Your task to perform on an android device: turn on data saver in the chrome app Image 0: 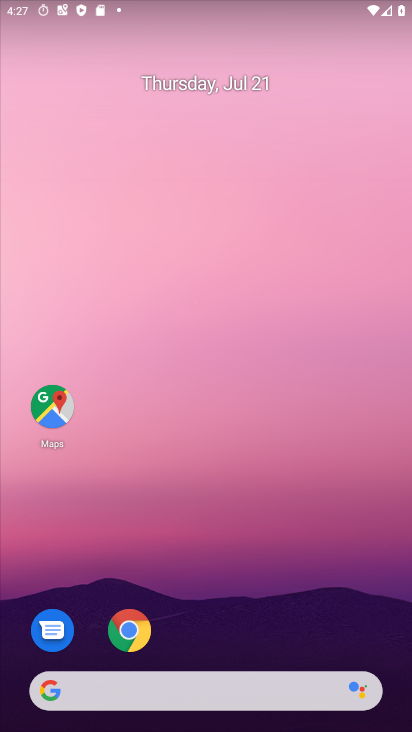
Step 0: click (132, 629)
Your task to perform on an android device: turn on data saver in the chrome app Image 1: 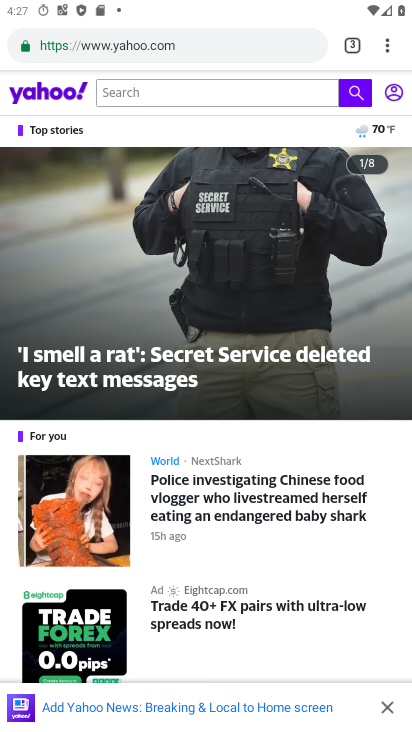
Step 1: click (389, 47)
Your task to perform on an android device: turn on data saver in the chrome app Image 2: 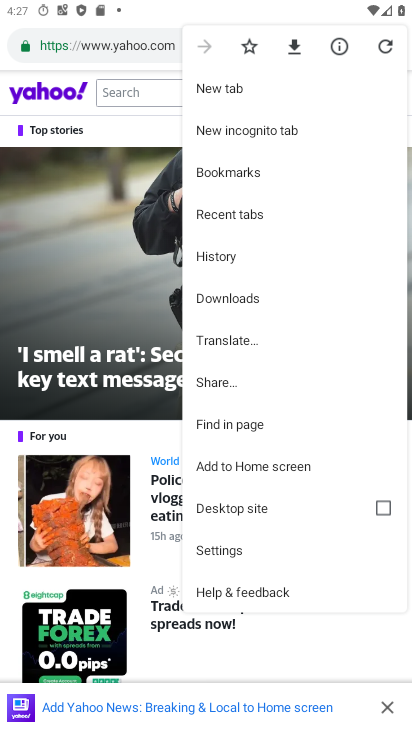
Step 2: click (228, 548)
Your task to perform on an android device: turn on data saver in the chrome app Image 3: 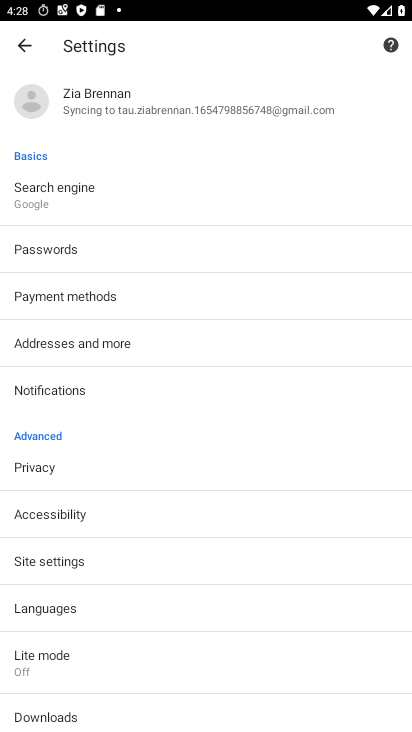
Step 3: click (50, 655)
Your task to perform on an android device: turn on data saver in the chrome app Image 4: 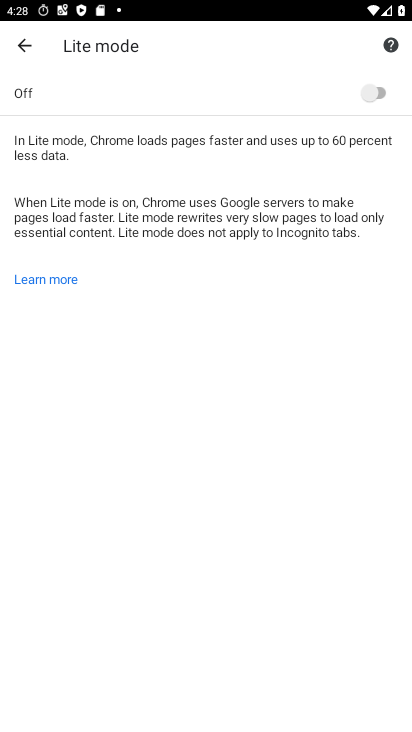
Step 4: click (375, 92)
Your task to perform on an android device: turn on data saver in the chrome app Image 5: 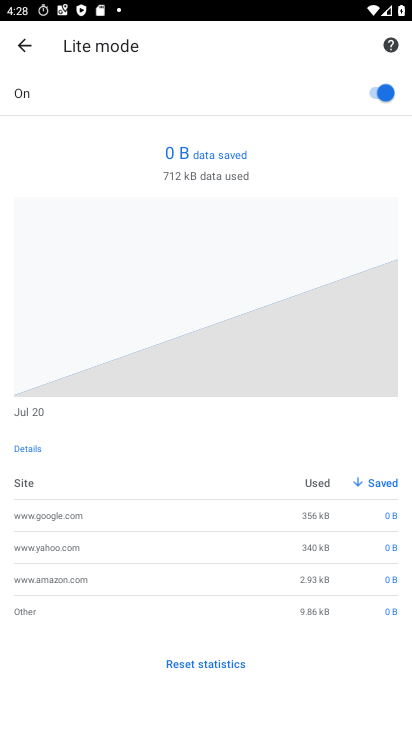
Step 5: task complete